Your task to perform on an android device: Open battery settings Image 0: 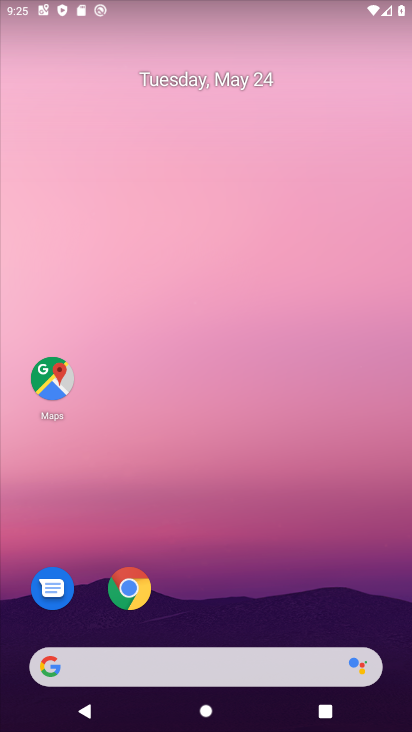
Step 0: drag from (246, 548) to (181, 47)
Your task to perform on an android device: Open battery settings Image 1: 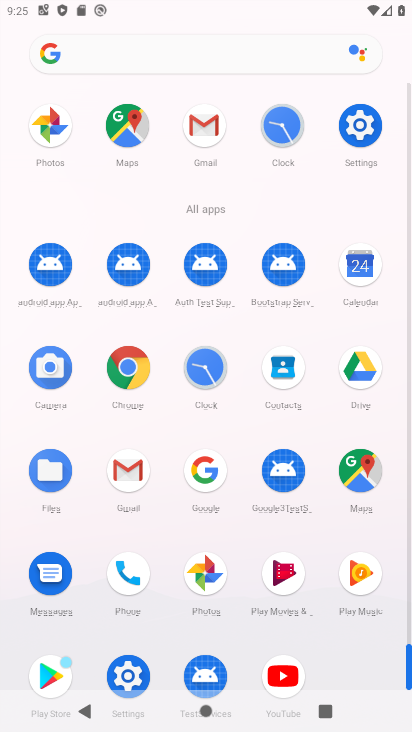
Step 1: drag from (12, 567) to (13, 303)
Your task to perform on an android device: Open battery settings Image 2: 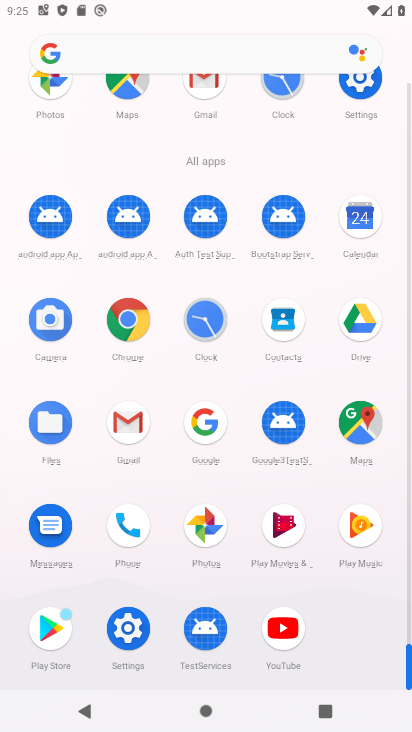
Step 2: click (127, 625)
Your task to perform on an android device: Open battery settings Image 3: 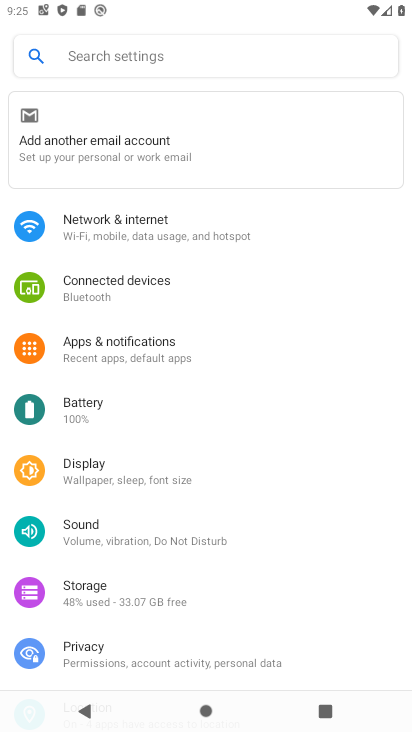
Step 3: click (110, 406)
Your task to perform on an android device: Open battery settings Image 4: 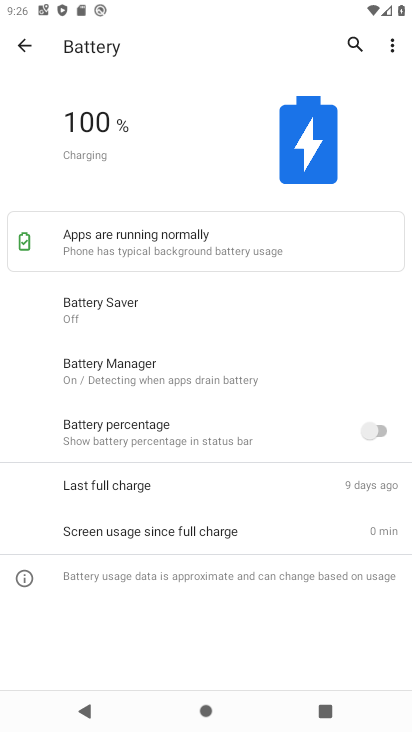
Step 4: task complete